Your task to perform on an android device: star an email in the gmail app Image 0: 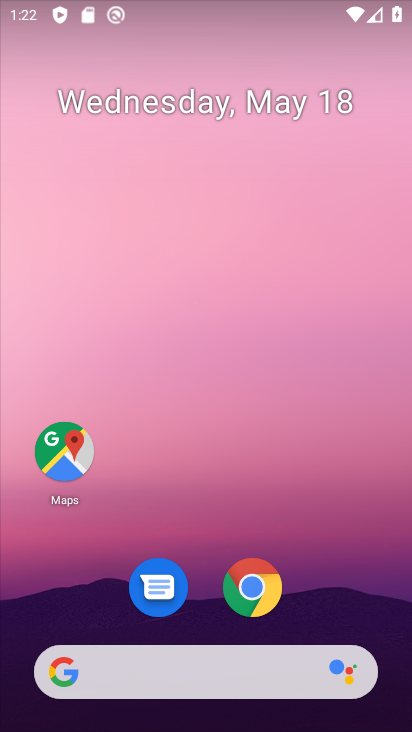
Step 0: click (381, 374)
Your task to perform on an android device: star an email in the gmail app Image 1: 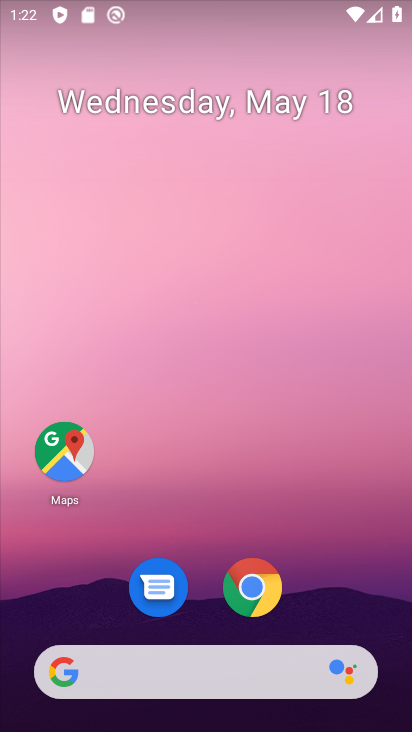
Step 1: drag from (393, 655) to (364, 432)
Your task to perform on an android device: star an email in the gmail app Image 2: 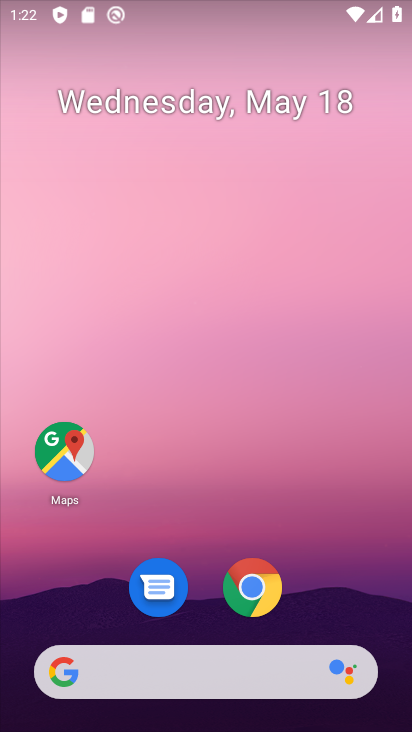
Step 2: drag from (395, 674) to (262, 259)
Your task to perform on an android device: star an email in the gmail app Image 3: 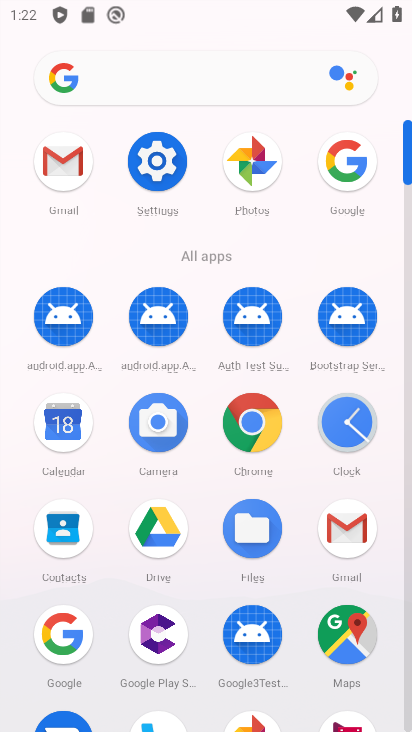
Step 3: click (340, 530)
Your task to perform on an android device: star an email in the gmail app Image 4: 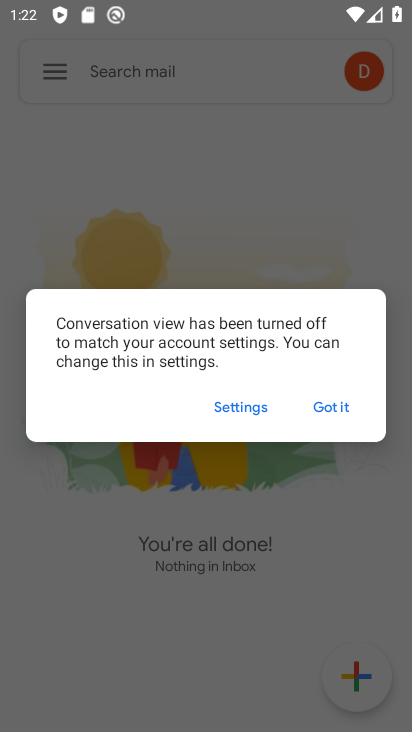
Step 4: click (328, 398)
Your task to perform on an android device: star an email in the gmail app Image 5: 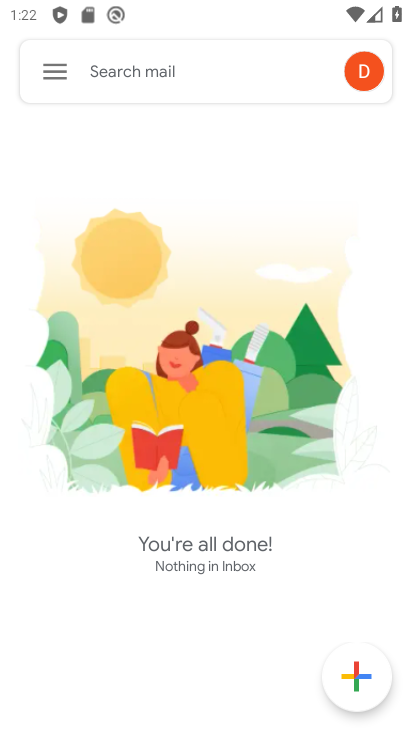
Step 5: click (51, 66)
Your task to perform on an android device: star an email in the gmail app Image 6: 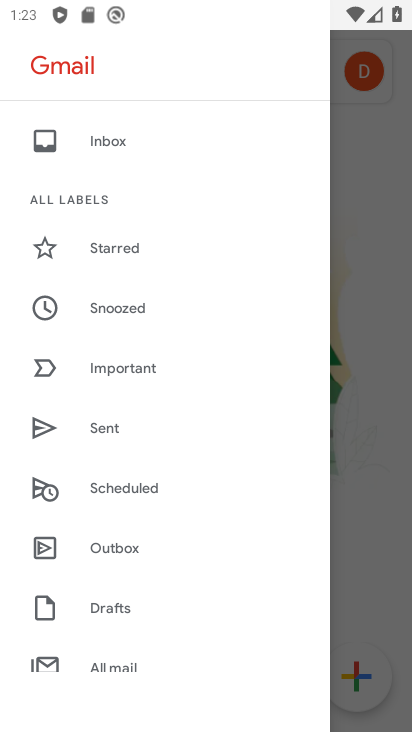
Step 6: drag from (228, 643) to (183, 408)
Your task to perform on an android device: star an email in the gmail app Image 7: 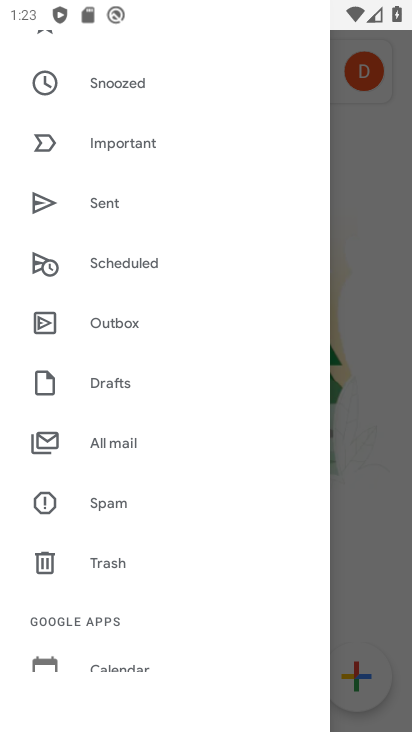
Step 7: drag from (209, 199) to (191, 487)
Your task to perform on an android device: star an email in the gmail app Image 8: 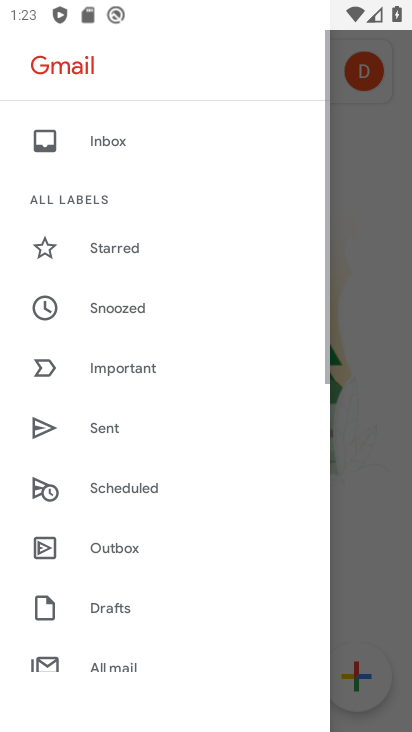
Step 8: click (102, 141)
Your task to perform on an android device: star an email in the gmail app Image 9: 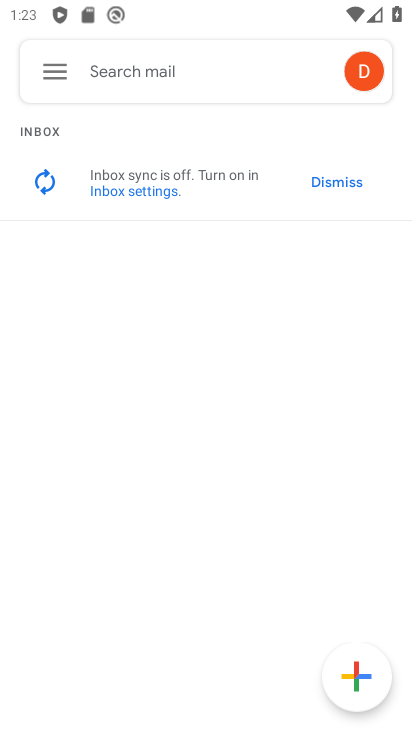
Step 9: task complete